Your task to perform on an android device: What's on my calendar today? Image 0: 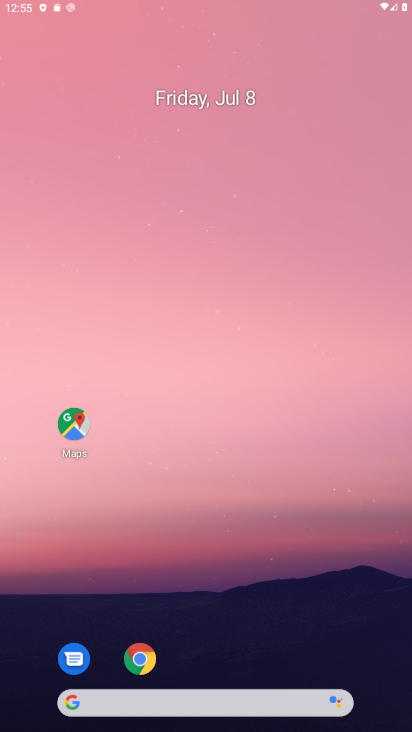
Step 0: drag from (219, 525) to (198, 120)
Your task to perform on an android device: What's on my calendar today? Image 1: 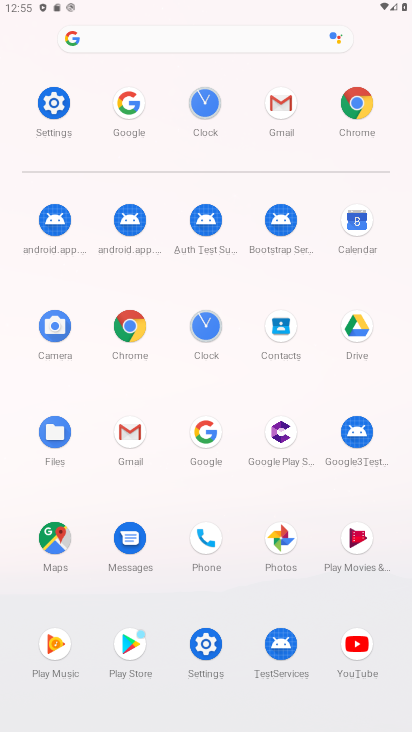
Step 1: click (359, 230)
Your task to perform on an android device: What's on my calendar today? Image 2: 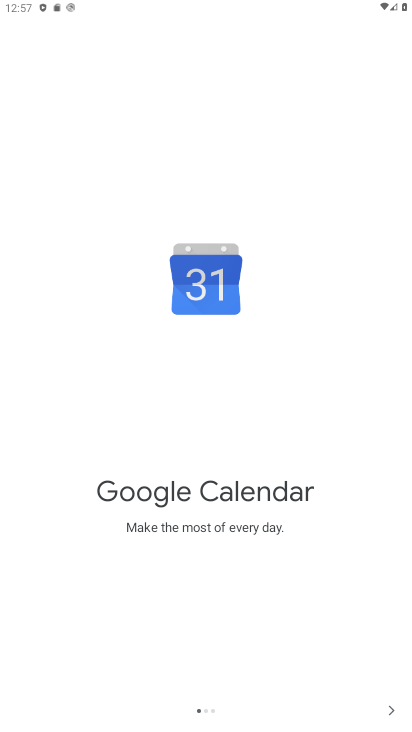
Step 2: click (385, 705)
Your task to perform on an android device: What's on my calendar today? Image 3: 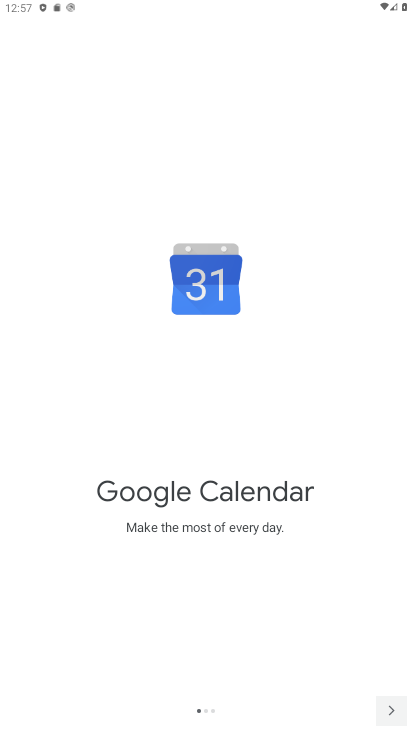
Step 3: click (385, 704)
Your task to perform on an android device: What's on my calendar today? Image 4: 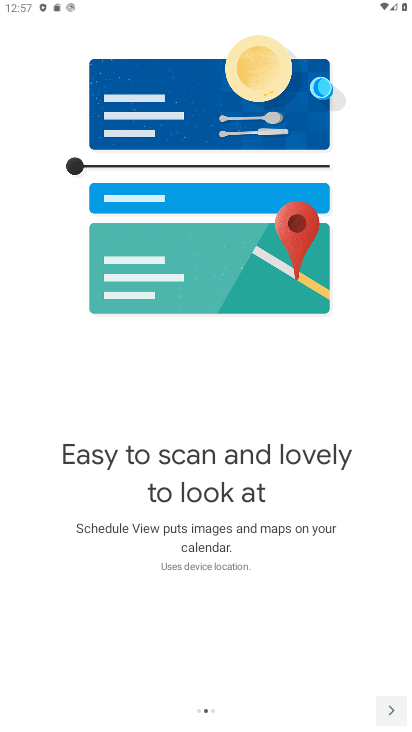
Step 4: click (384, 703)
Your task to perform on an android device: What's on my calendar today? Image 5: 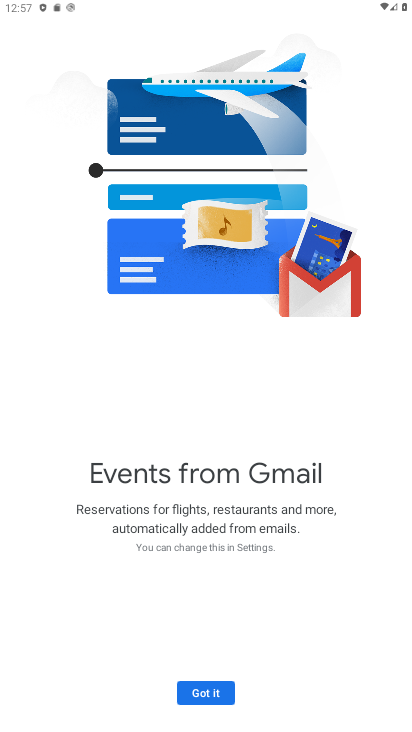
Step 5: click (216, 696)
Your task to perform on an android device: What's on my calendar today? Image 6: 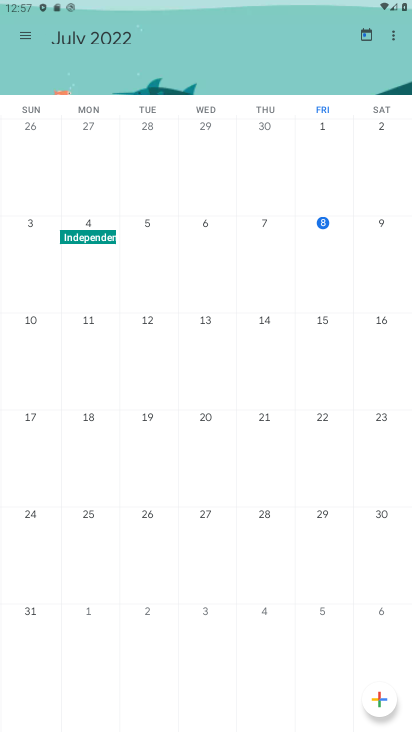
Step 6: click (325, 223)
Your task to perform on an android device: What's on my calendar today? Image 7: 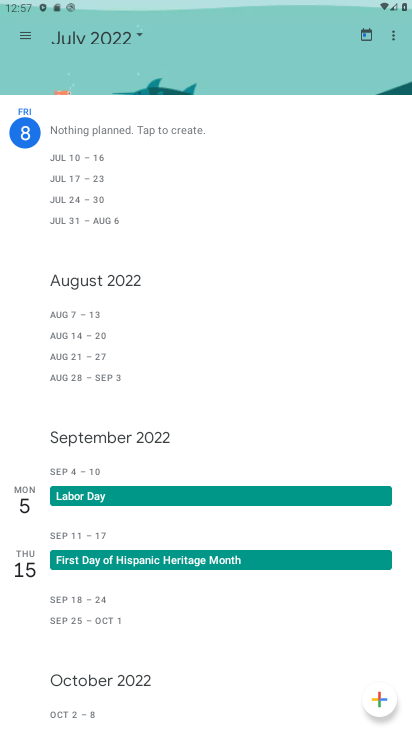
Step 7: drag from (264, 534) to (293, 593)
Your task to perform on an android device: What's on my calendar today? Image 8: 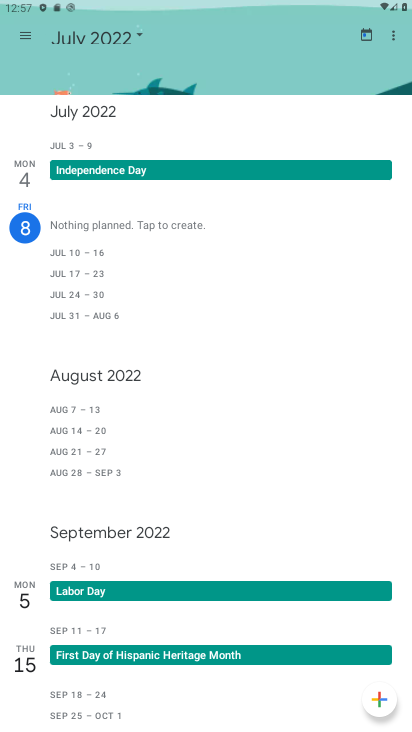
Step 8: click (119, 235)
Your task to perform on an android device: What's on my calendar today? Image 9: 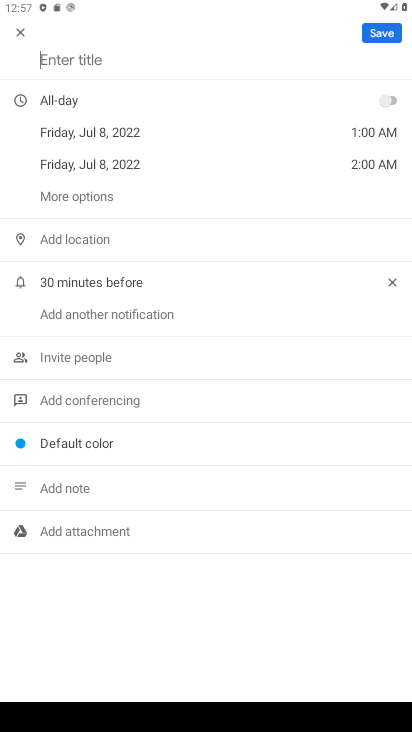
Step 9: task complete